Your task to perform on an android device: Go to eBay Image 0: 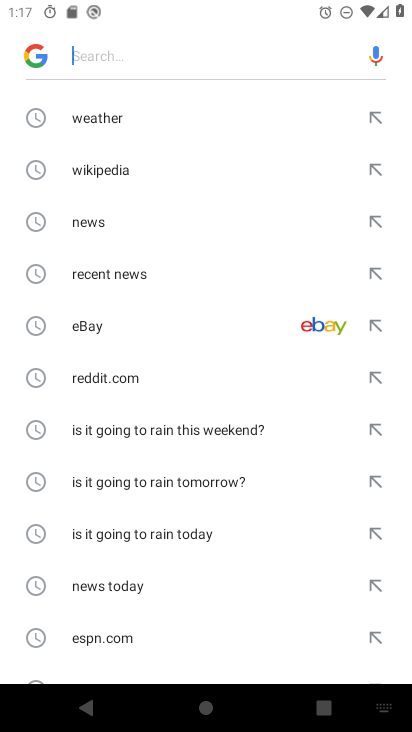
Step 0: click (305, 326)
Your task to perform on an android device: Go to eBay Image 1: 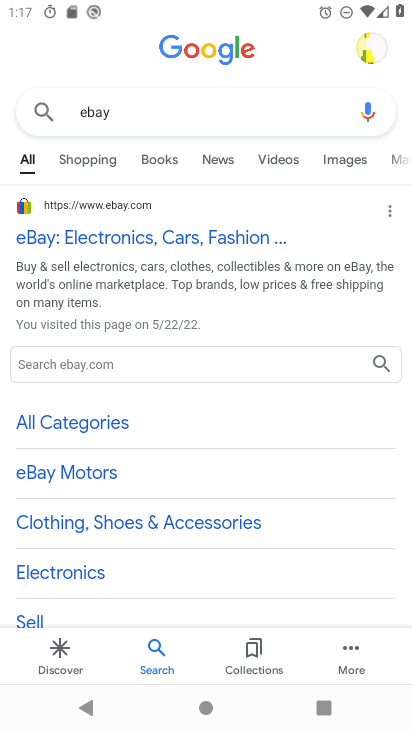
Step 1: click (144, 249)
Your task to perform on an android device: Go to eBay Image 2: 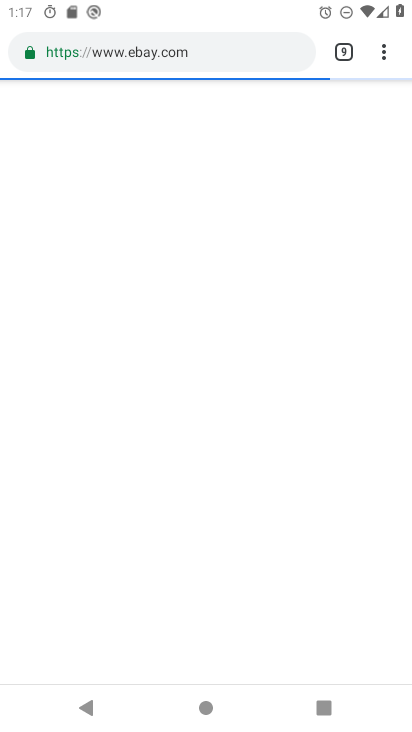
Step 2: click (110, 240)
Your task to perform on an android device: Go to eBay Image 3: 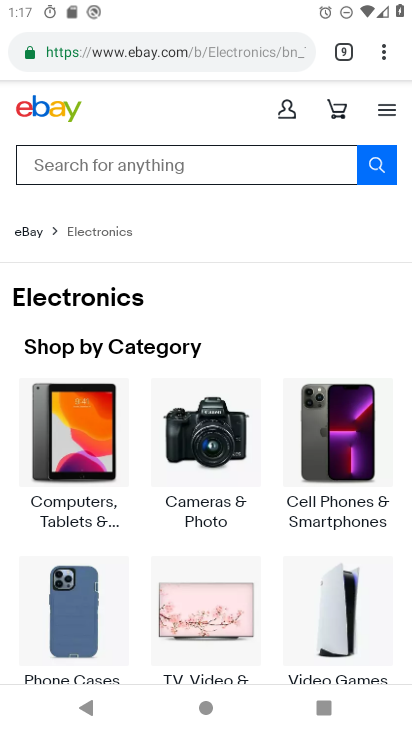
Step 3: task complete